Your task to perform on an android device: toggle translation in the chrome app Image 0: 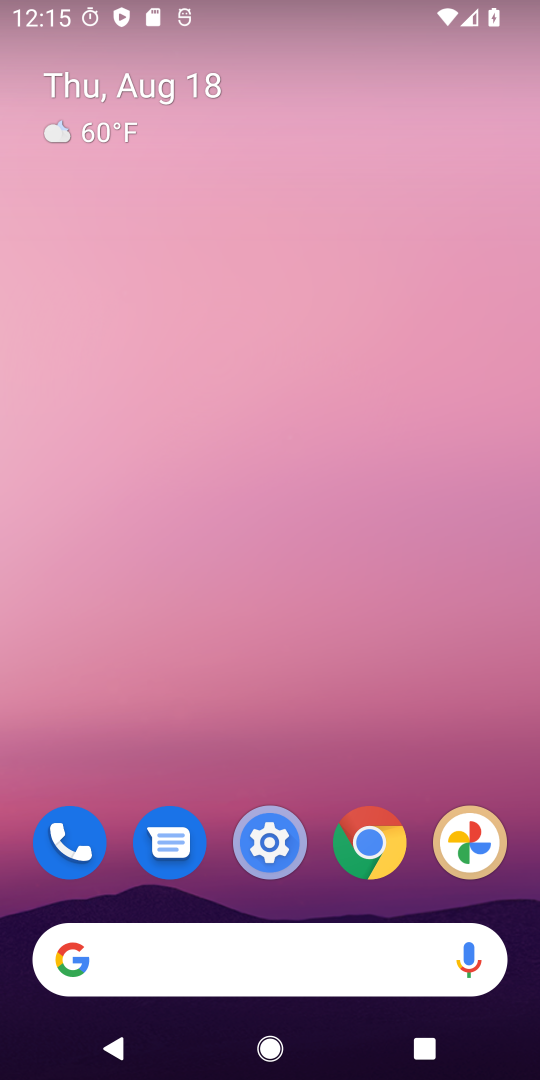
Step 0: click (380, 834)
Your task to perform on an android device: toggle translation in the chrome app Image 1: 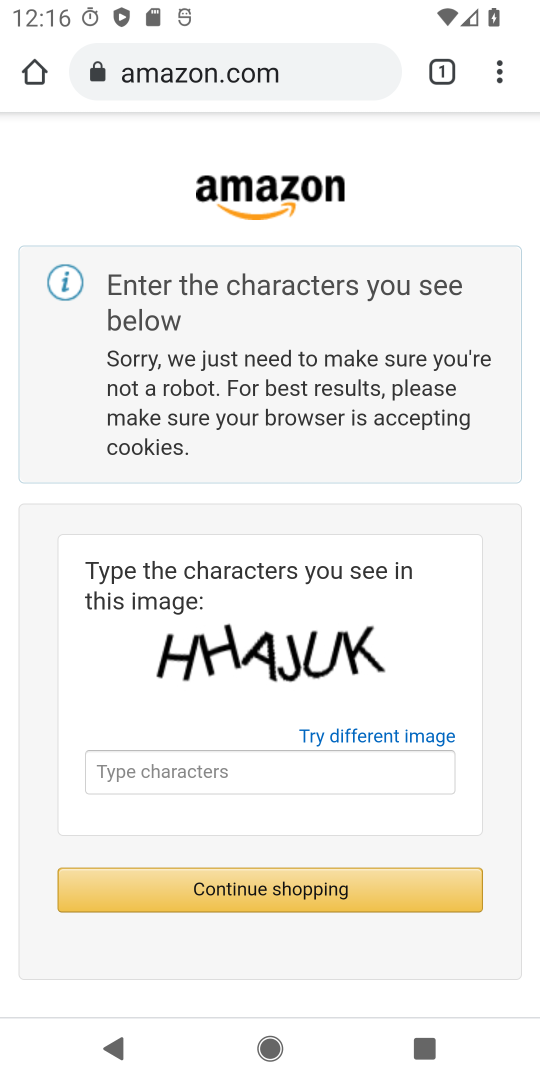
Step 1: click (507, 72)
Your task to perform on an android device: toggle translation in the chrome app Image 2: 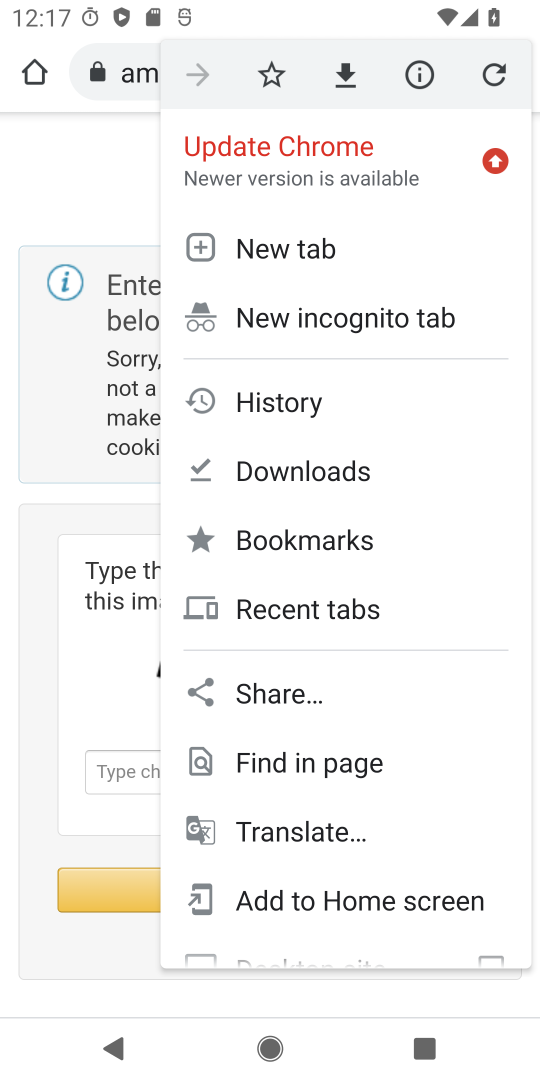
Step 2: drag from (368, 791) to (397, 346)
Your task to perform on an android device: toggle translation in the chrome app Image 3: 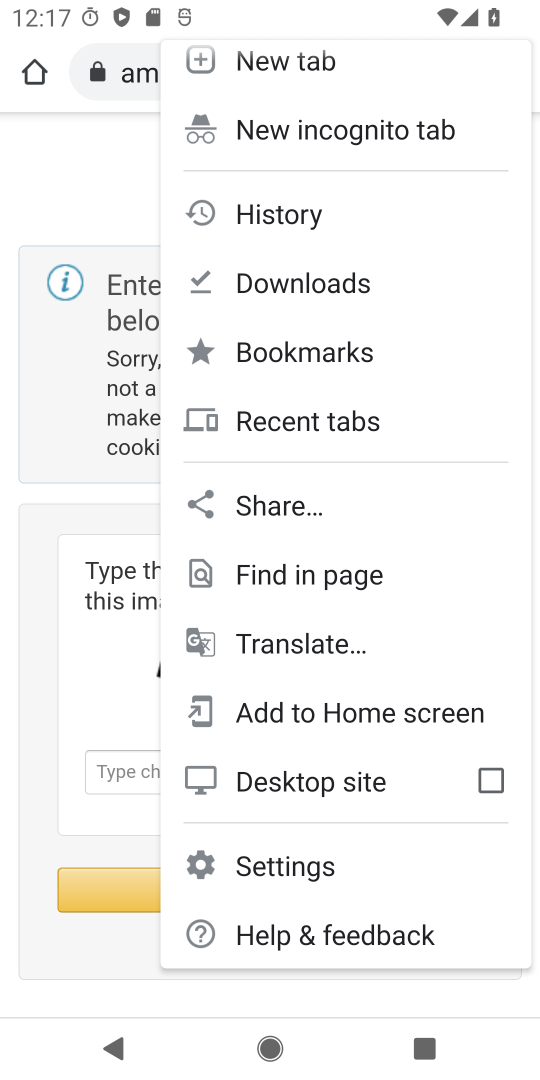
Step 3: click (261, 897)
Your task to perform on an android device: toggle translation in the chrome app Image 4: 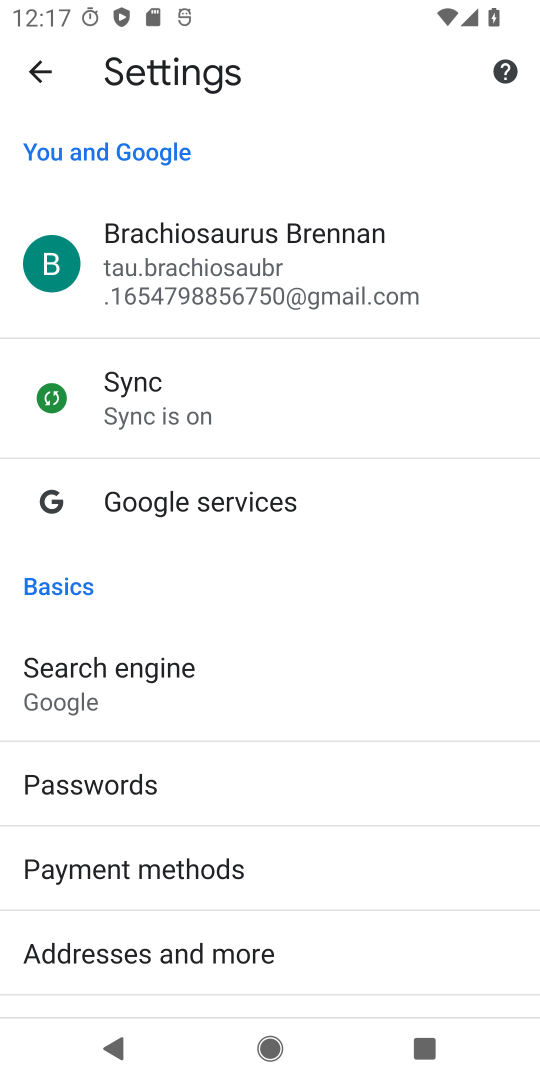
Step 4: click (261, 897)
Your task to perform on an android device: toggle translation in the chrome app Image 5: 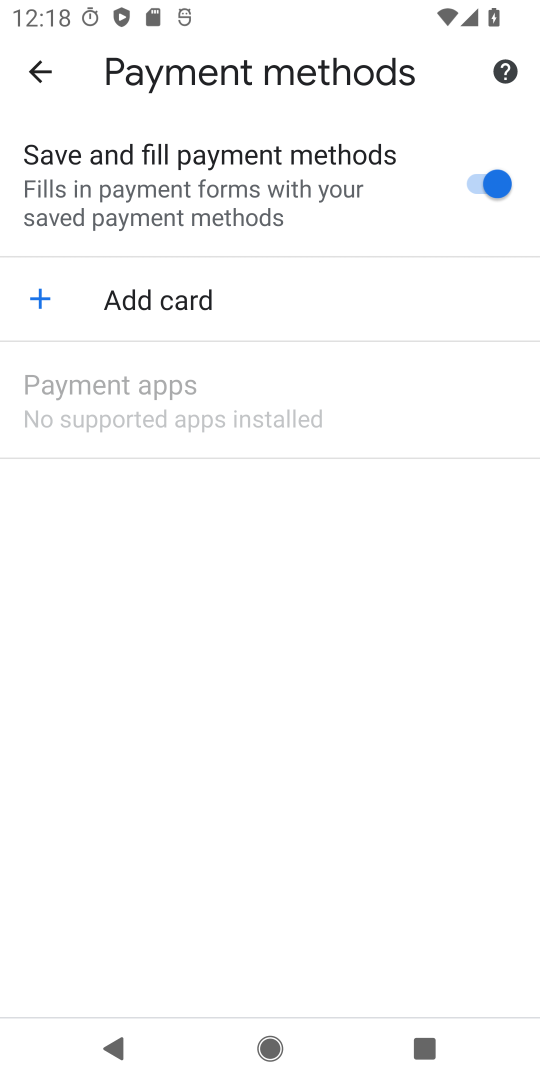
Step 5: click (35, 68)
Your task to perform on an android device: toggle translation in the chrome app Image 6: 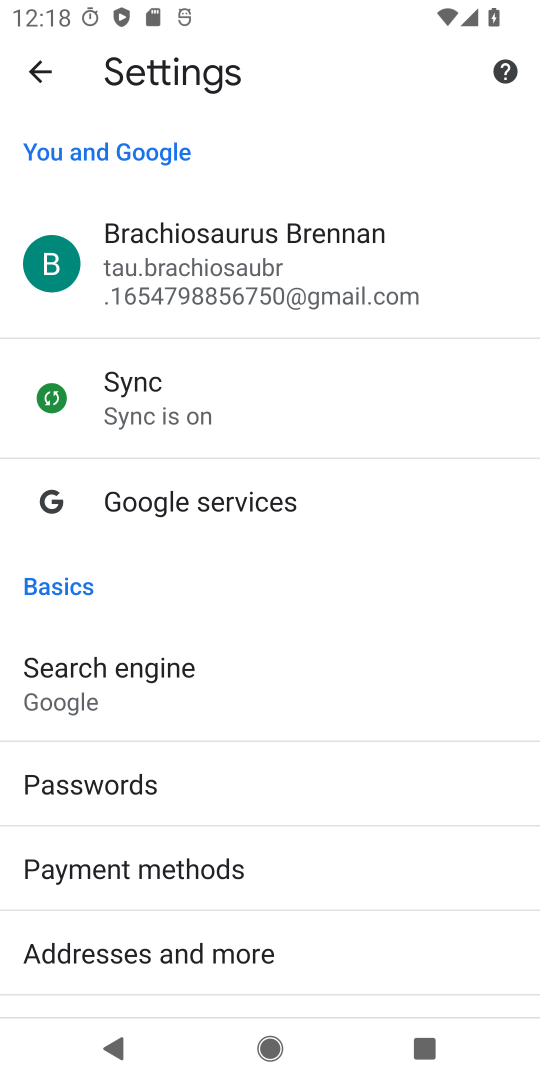
Step 6: drag from (394, 250) to (398, 108)
Your task to perform on an android device: toggle translation in the chrome app Image 7: 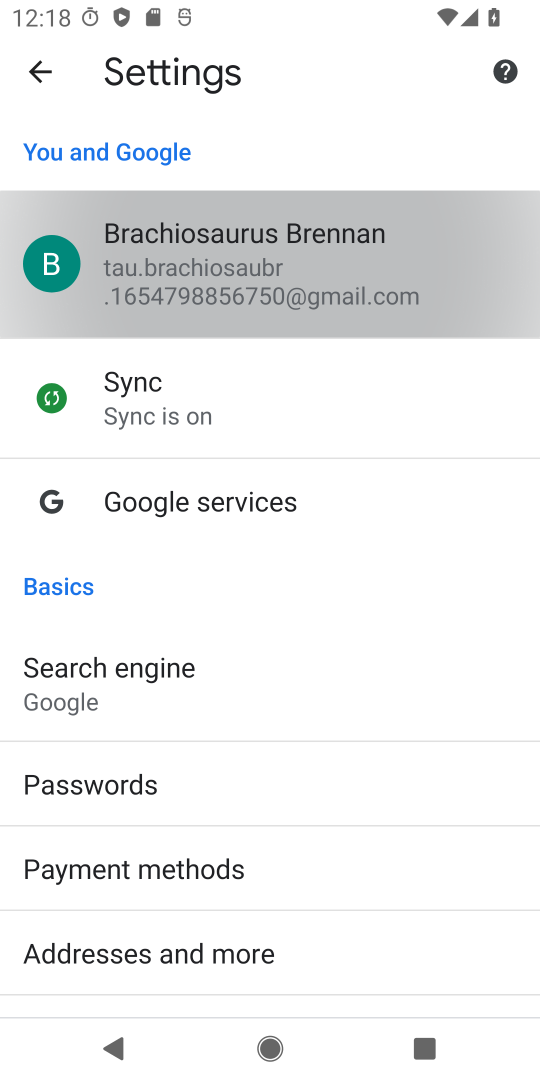
Step 7: drag from (269, 910) to (310, 210)
Your task to perform on an android device: toggle translation in the chrome app Image 8: 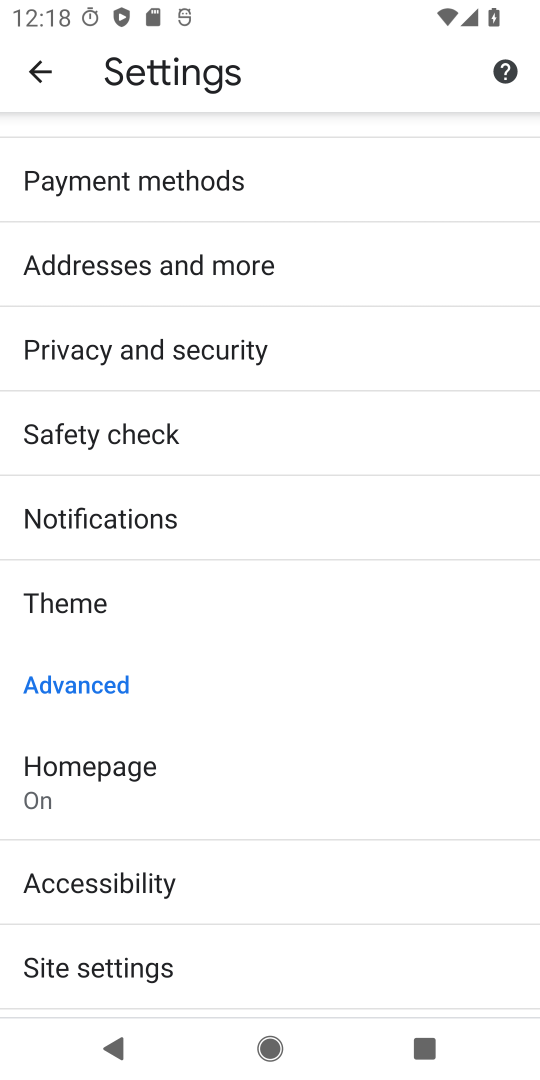
Step 8: drag from (244, 968) to (363, 142)
Your task to perform on an android device: toggle translation in the chrome app Image 9: 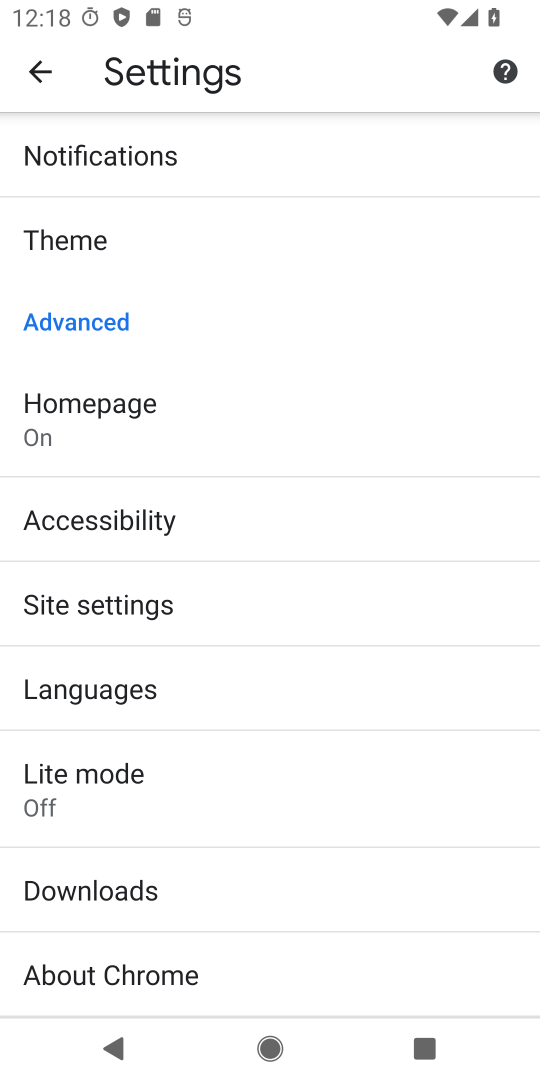
Step 9: click (190, 696)
Your task to perform on an android device: toggle translation in the chrome app Image 10: 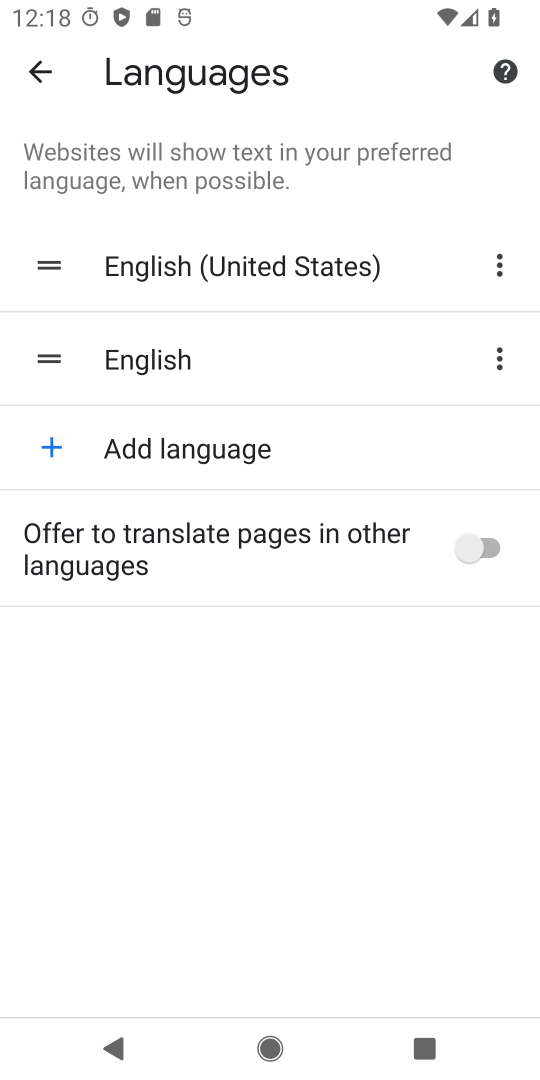
Step 10: click (490, 539)
Your task to perform on an android device: toggle translation in the chrome app Image 11: 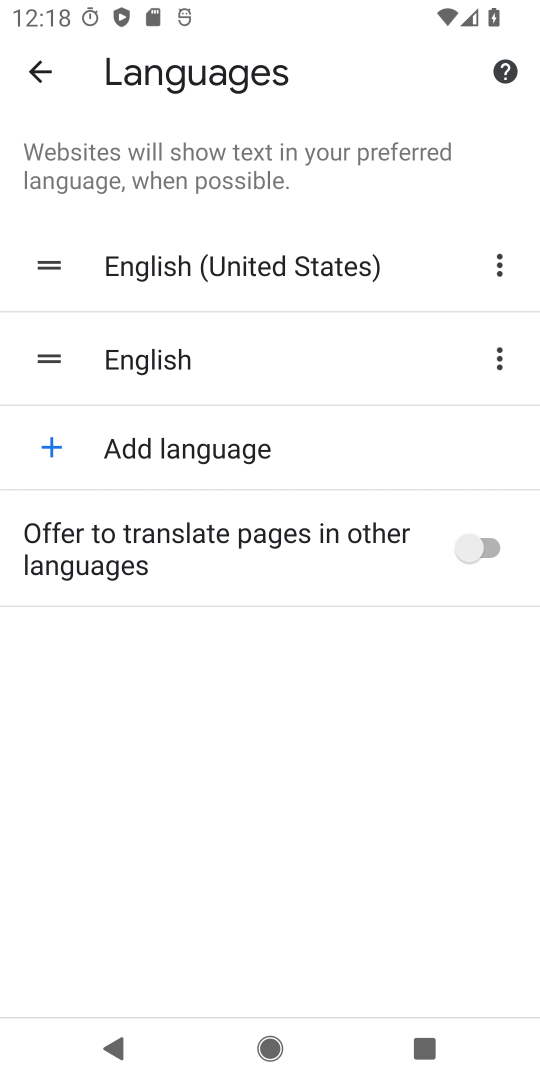
Step 11: click (490, 539)
Your task to perform on an android device: toggle translation in the chrome app Image 12: 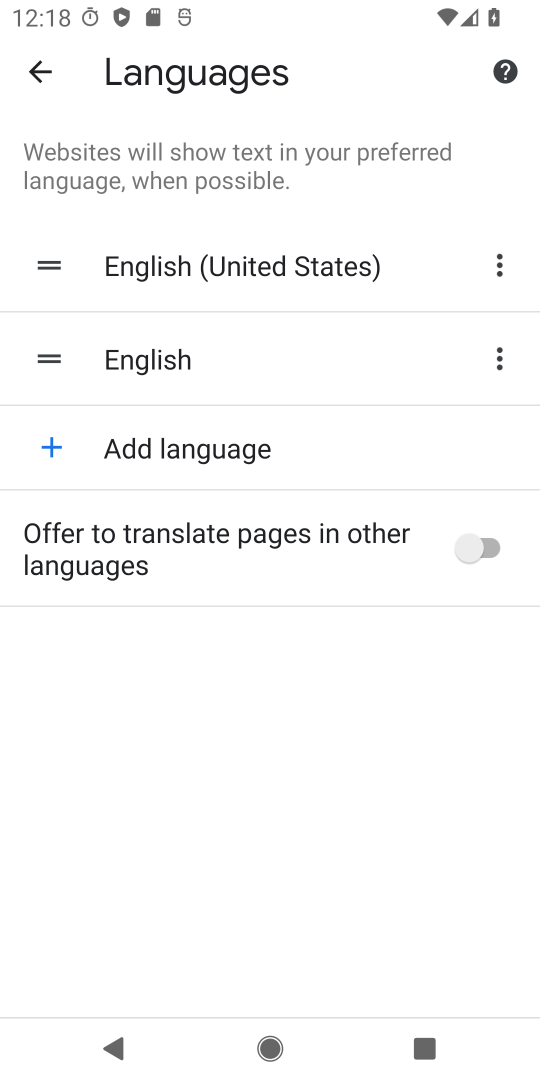
Step 12: click (490, 539)
Your task to perform on an android device: toggle translation in the chrome app Image 13: 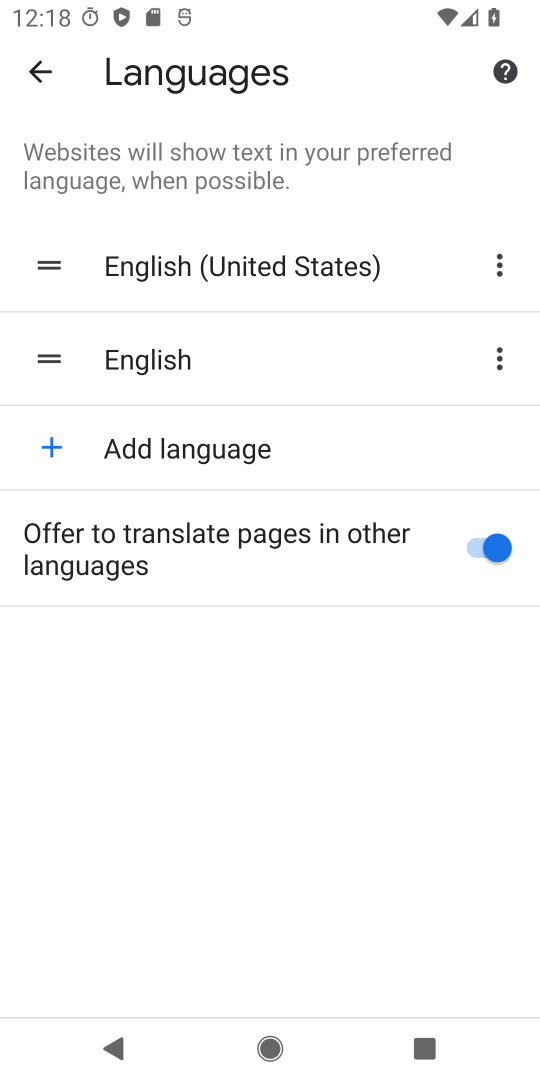
Step 13: click (486, 552)
Your task to perform on an android device: toggle translation in the chrome app Image 14: 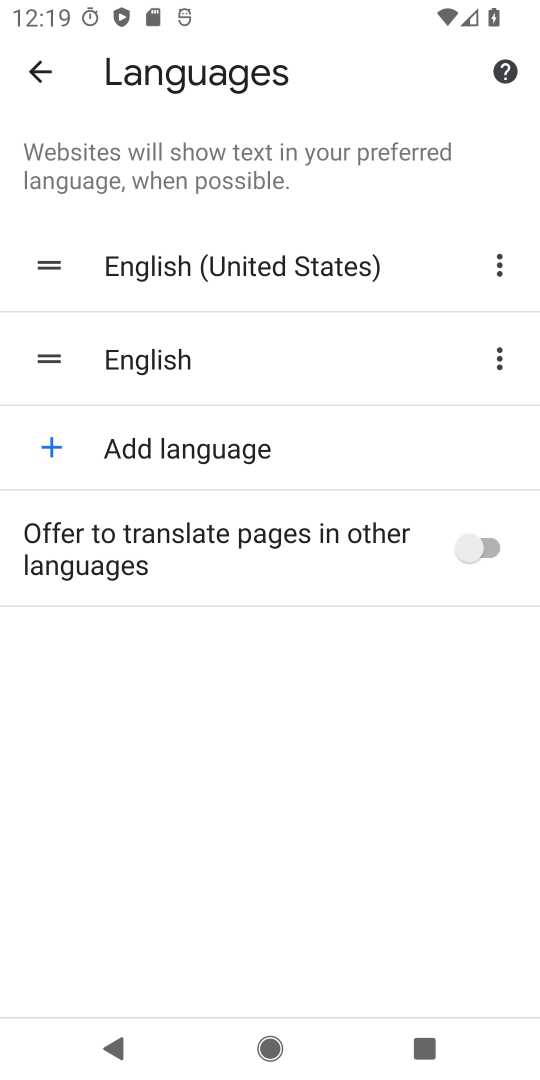
Step 14: click (483, 538)
Your task to perform on an android device: toggle translation in the chrome app Image 15: 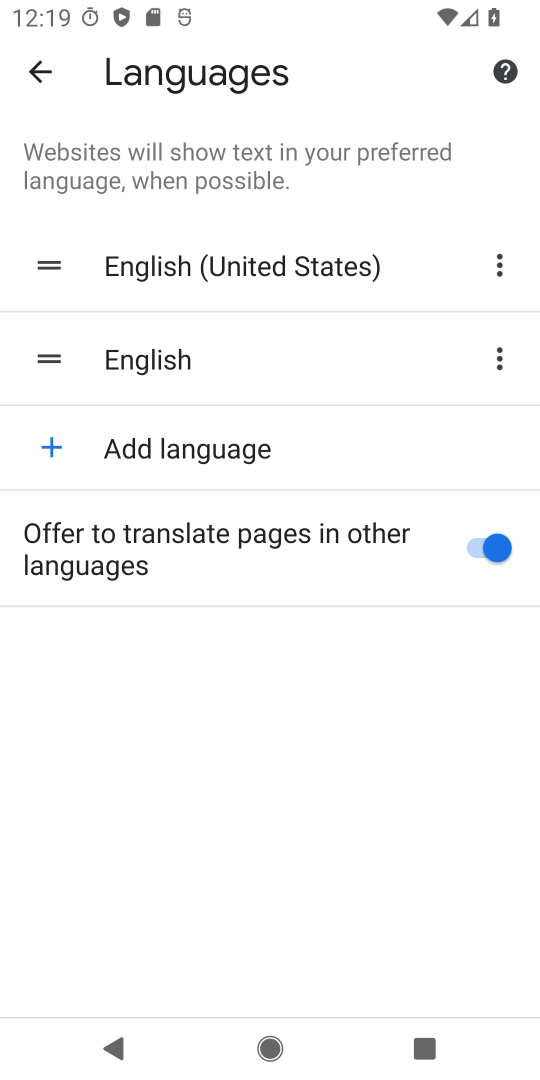
Step 15: click (488, 548)
Your task to perform on an android device: toggle translation in the chrome app Image 16: 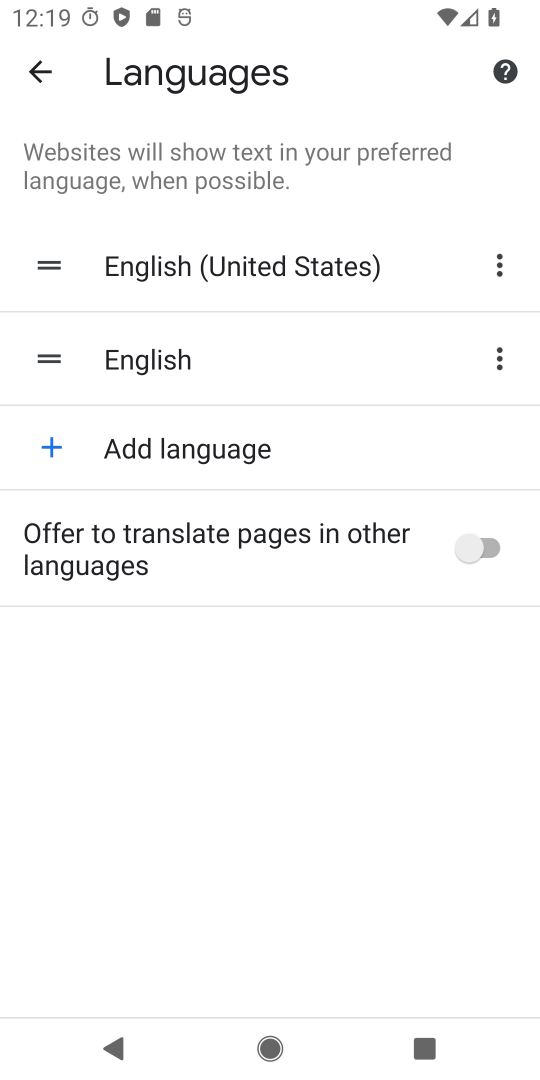
Step 16: task complete